Your task to perform on an android device: install app "Indeed Job Search" Image 0: 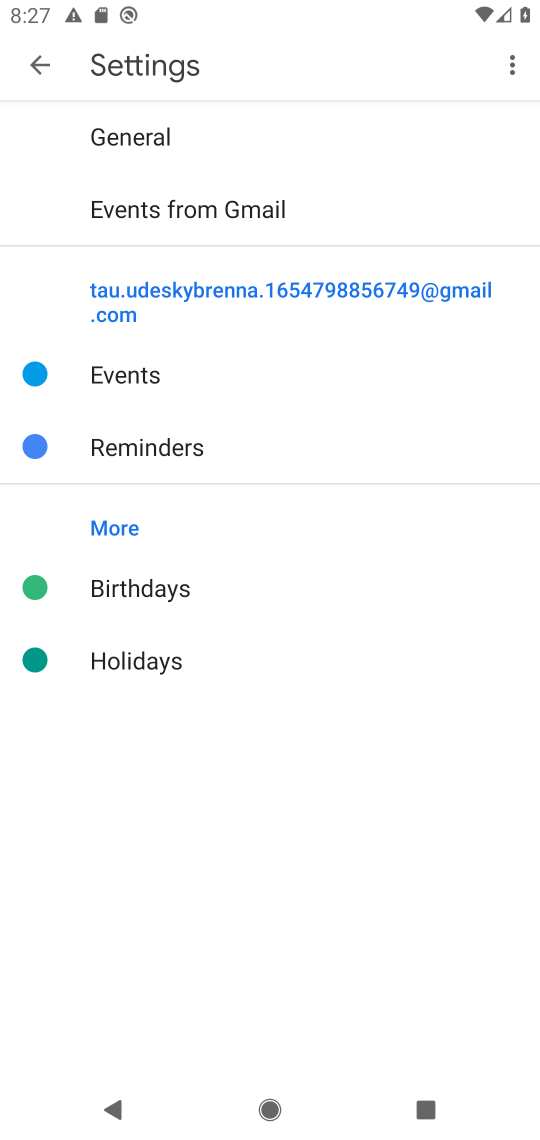
Step 0: press home button
Your task to perform on an android device: install app "Indeed Job Search" Image 1: 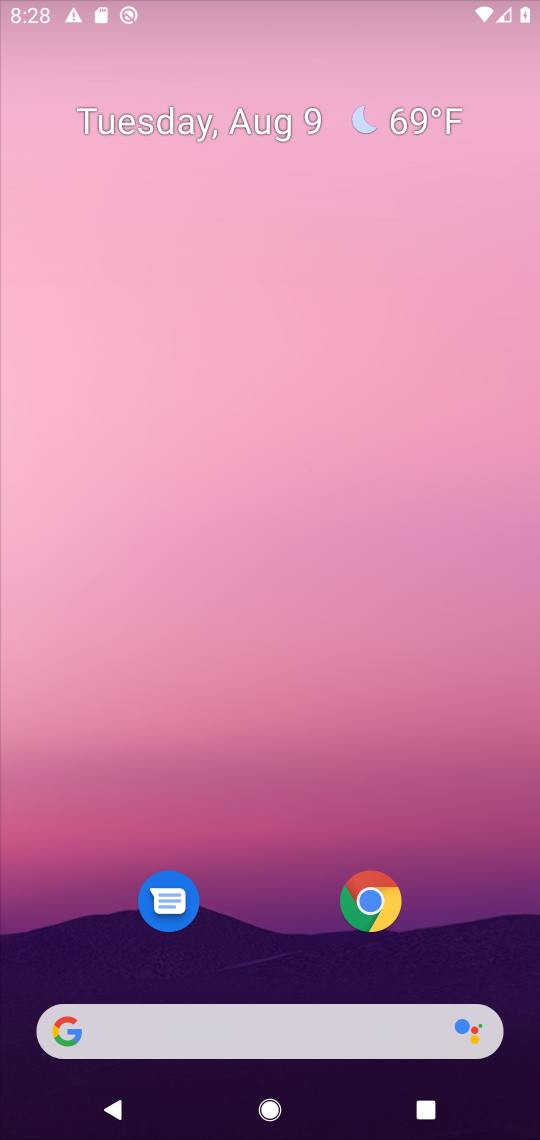
Step 1: drag from (258, 914) to (318, 163)
Your task to perform on an android device: install app "Indeed Job Search" Image 2: 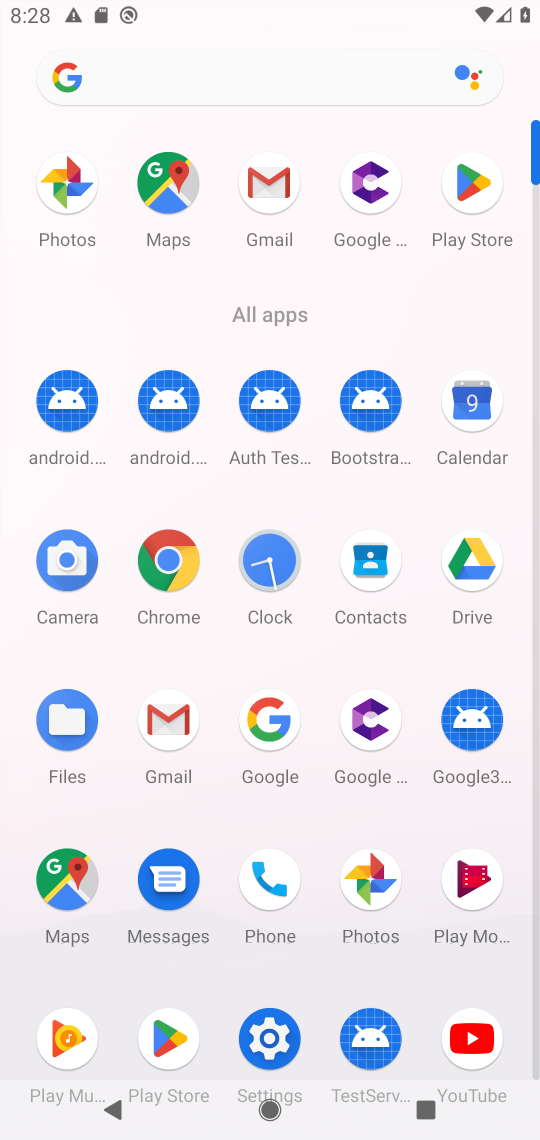
Step 2: click (172, 1032)
Your task to perform on an android device: install app "Indeed Job Search" Image 3: 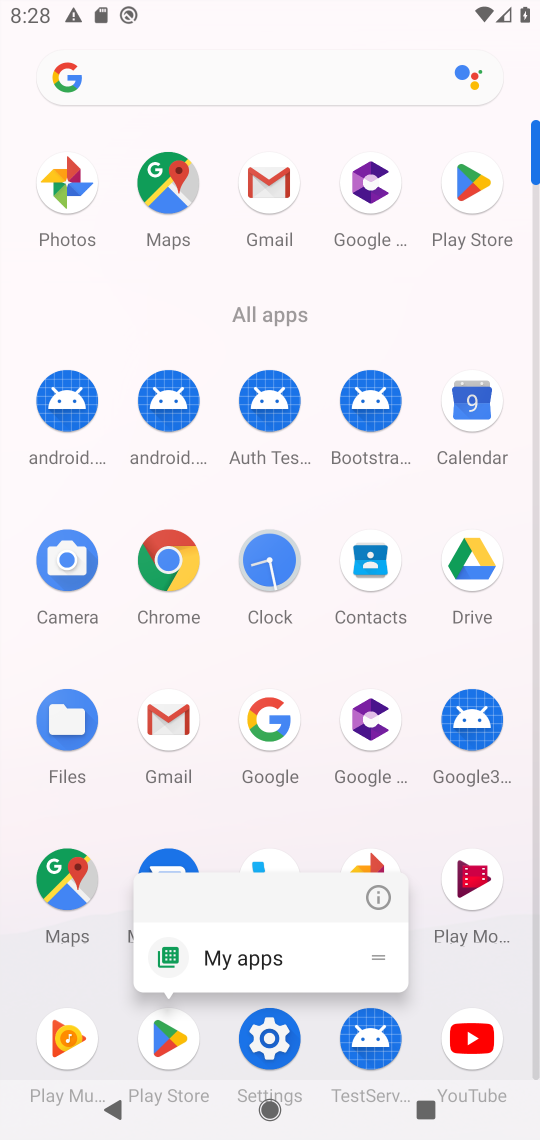
Step 3: click (172, 1038)
Your task to perform on an android device: install app "Indeed Job Search" Image 4: 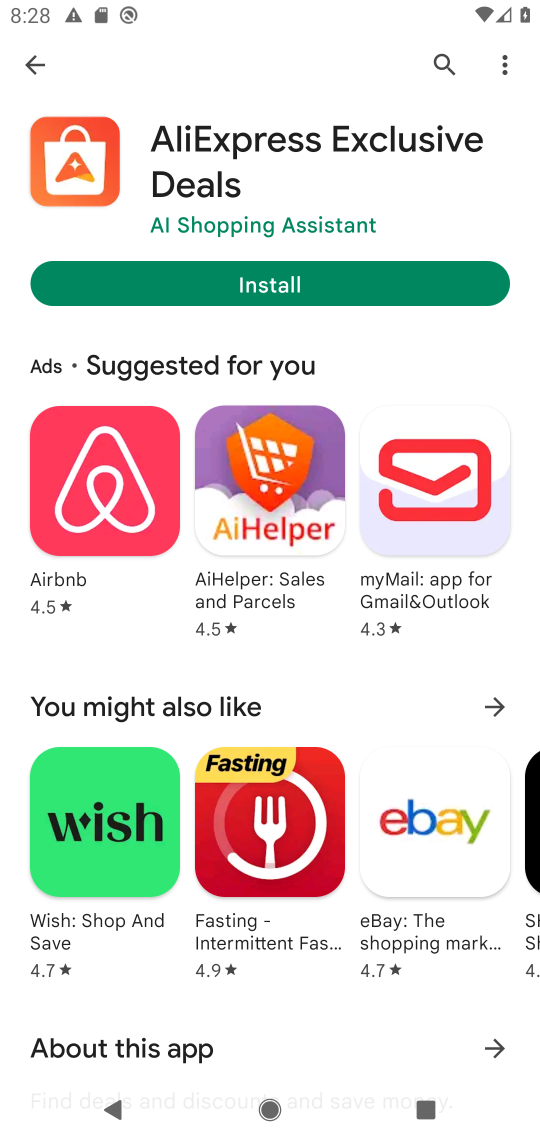
Step 4: click (46, 52)
Your task to perform on an android device: install app "Indeed Job Search" Image 5: 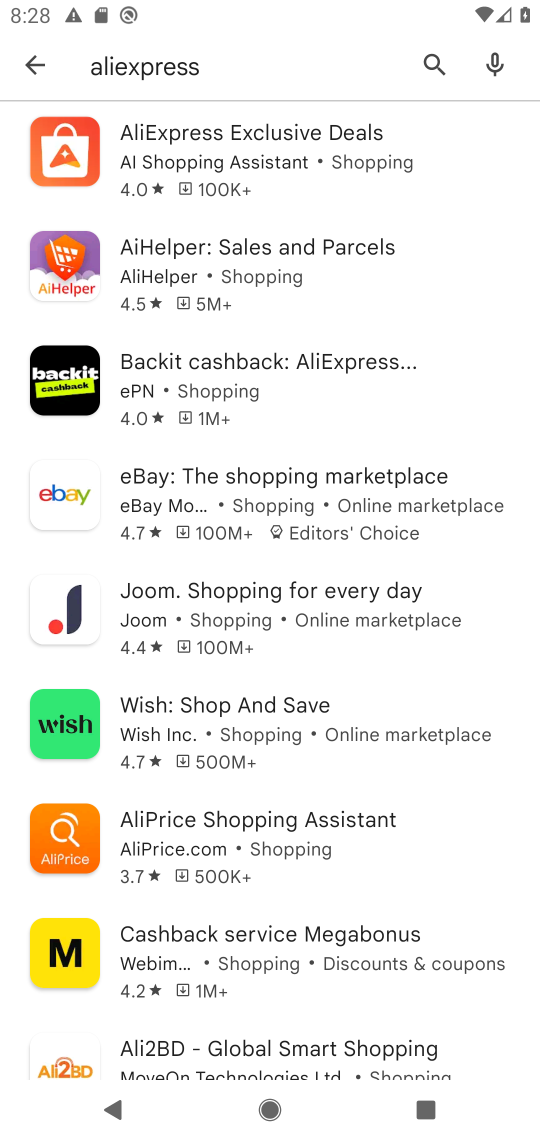
Step 5: click (31, 70)
Your task to perform on an android device: install app "Indeed Job Search" Image 6: 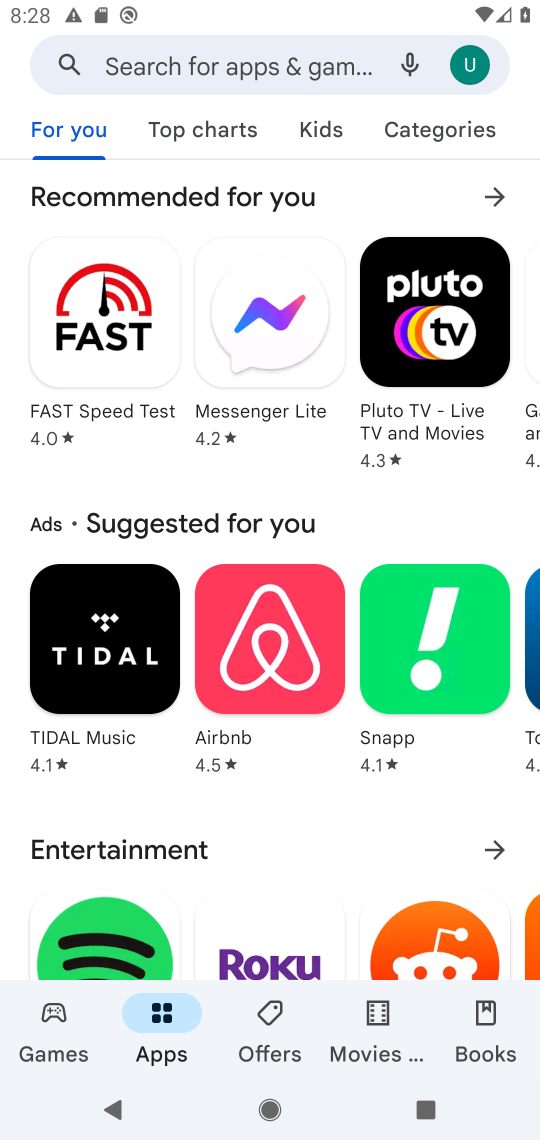
Step 6: click (244, 58)
Your task to perform on an android device: install app "Indeed Job Search" Image 7: 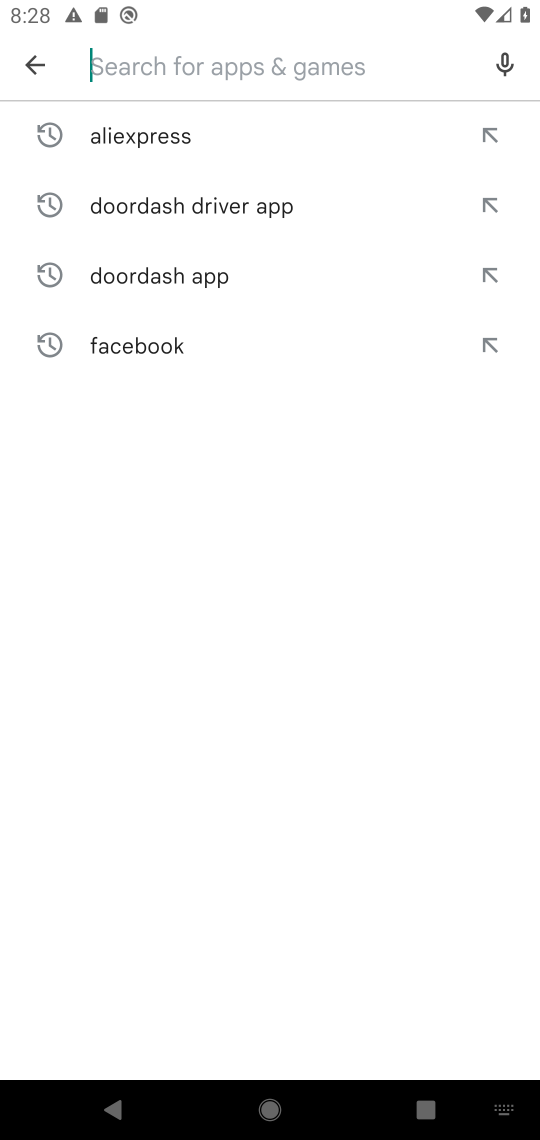
Step 7: type "Indeed  "
Your task to perform on an android device: install app "Indeed Job Search" Image 8: 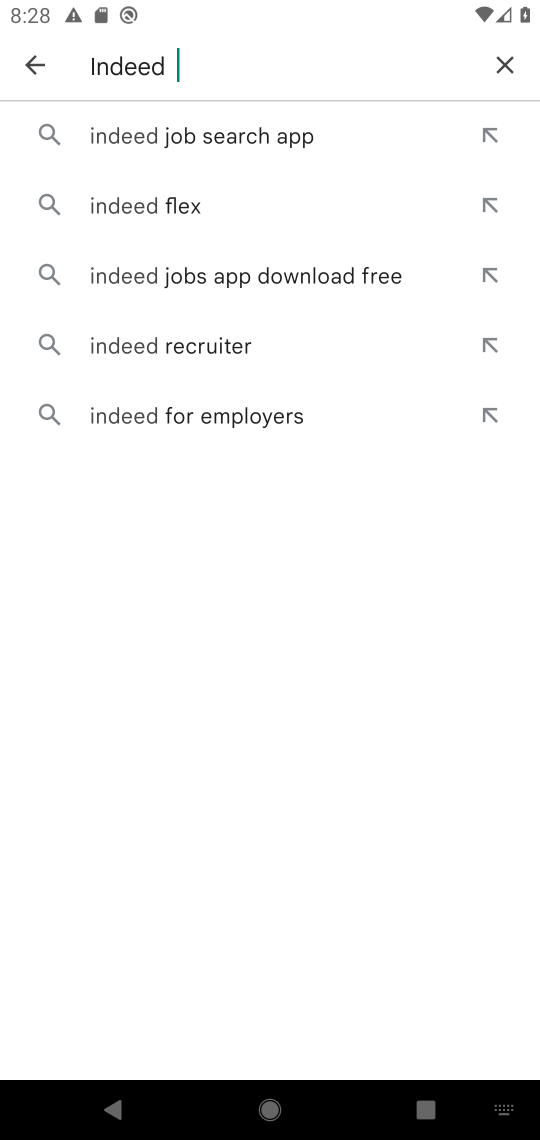
Step 8: click (154, 136)
Your task to perform on an android device: install app "Indeed Job Search" Image 9: 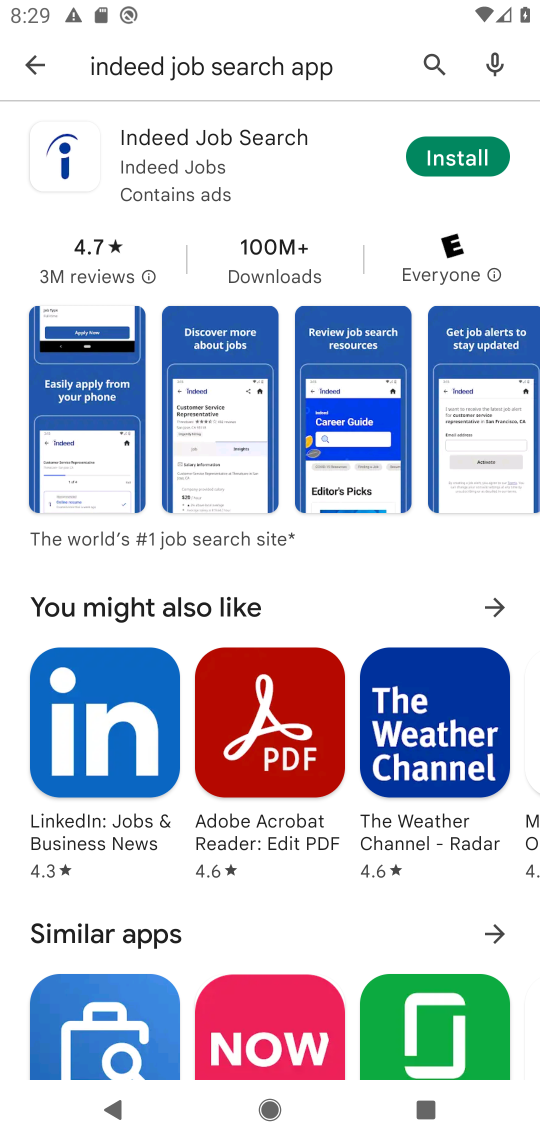
Step 9: click (467, 143)
Your task to perform on an android device: install app "Indeed Job Search" Image 10: 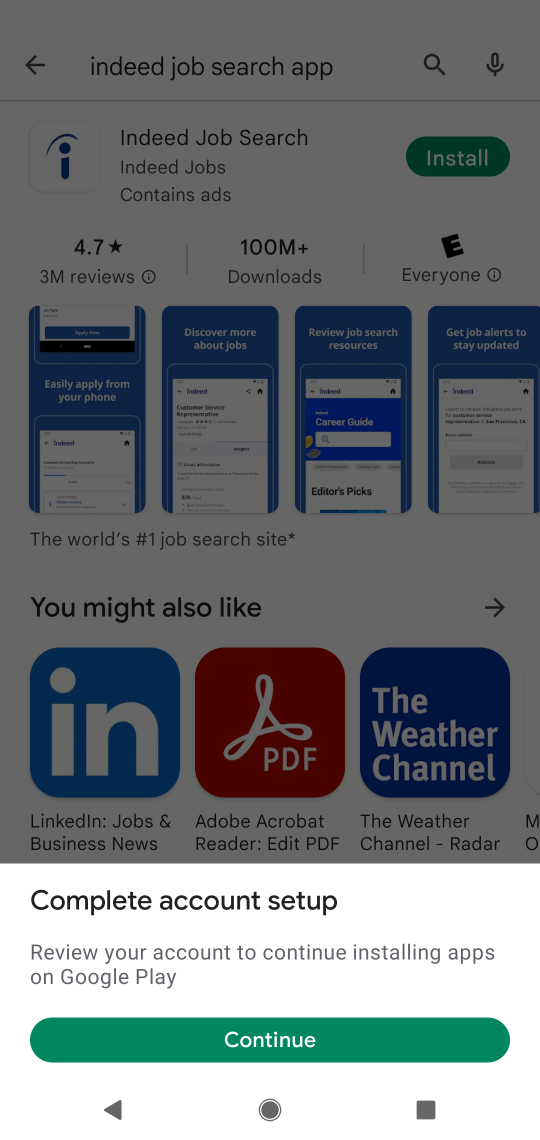
Step 10: click (300, 1043)
Your task to perform on an android device: install app "Indeed Job Search" Image 11: 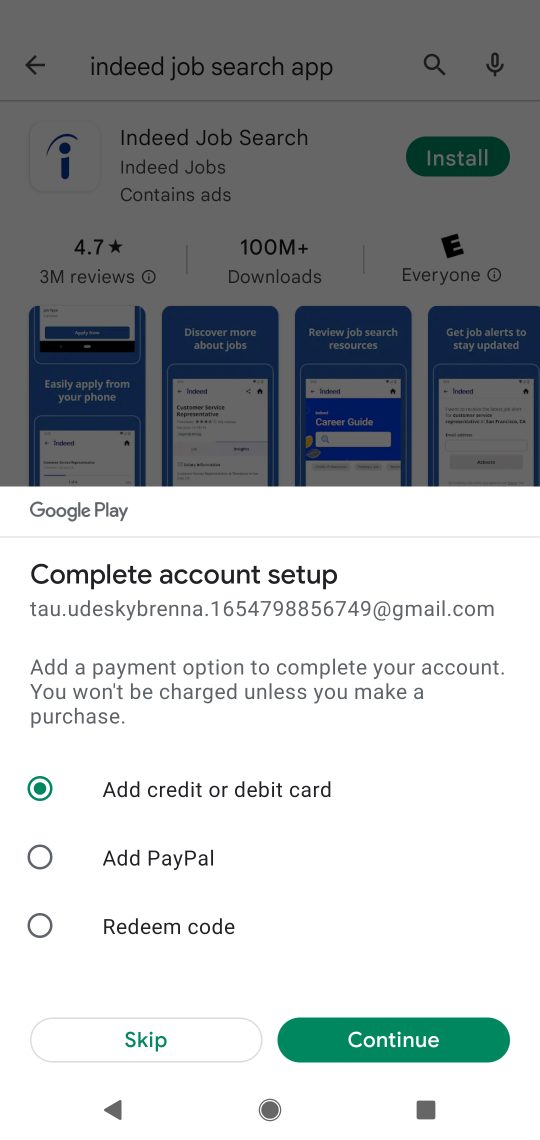
Step 11: click (44, 859)
Your task to perform on an android device: install app "Indeed Job Search" Image 12: 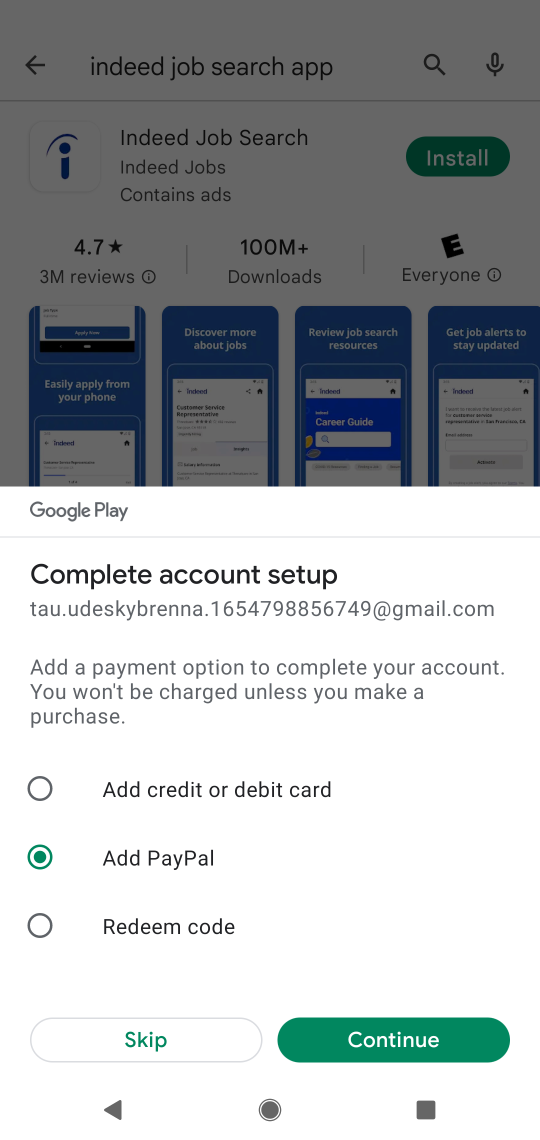
Step 12: click (436, 1036)
Your task to perform on an android device: install app "Indeed Job Search" Image 13: 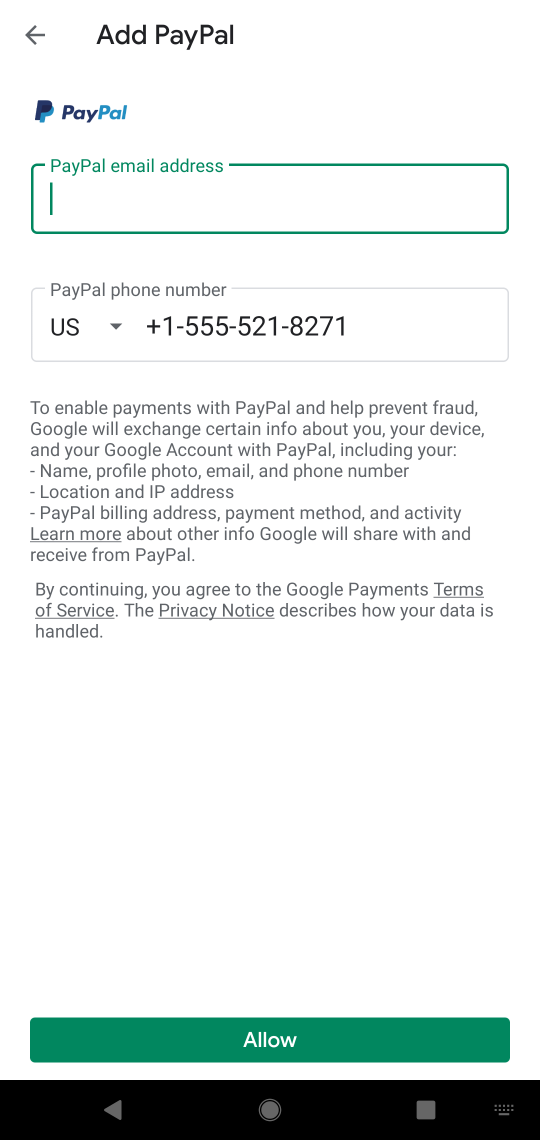
Step 13: task complete